Your task to perform on an android device: manage bookmarks in the chrome app Image 0: 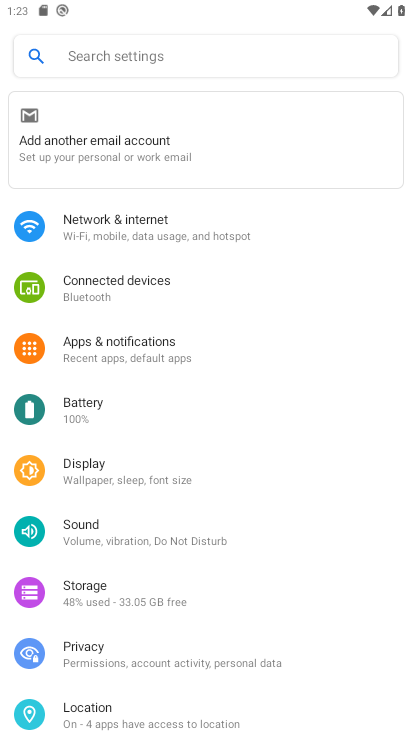
Step 0: press home button
Your task to perform on an android device: manage bookmarks in the chrome app Image 1: 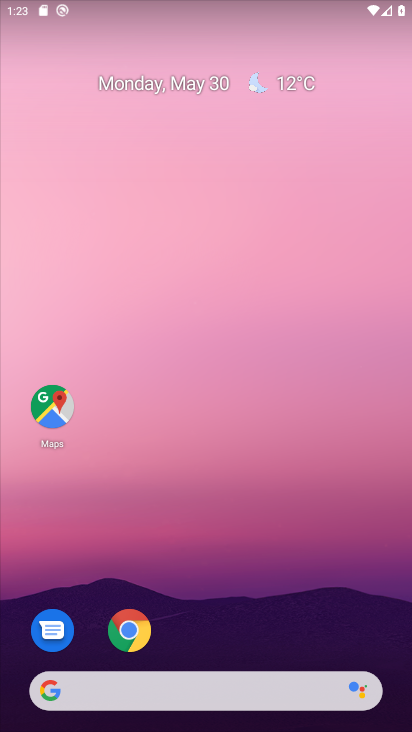
Step 1: click (129, 636)
Your task to perform on an android device: manage bookmarks in the chrome app Image 2: 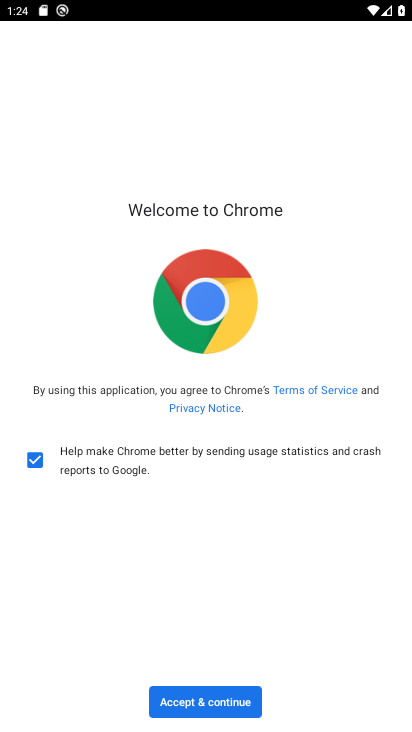
Step 2: click (194, 707)
Your task to perform on an android device: manage bookmarks in the chrome app Image 3: 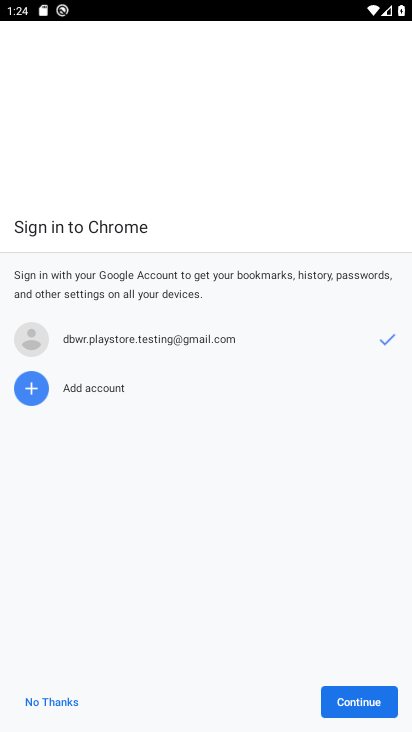
Step 3: click (354, 699)
Your task to perform on an android device: manage bookmarks in the chrome app Image 4: 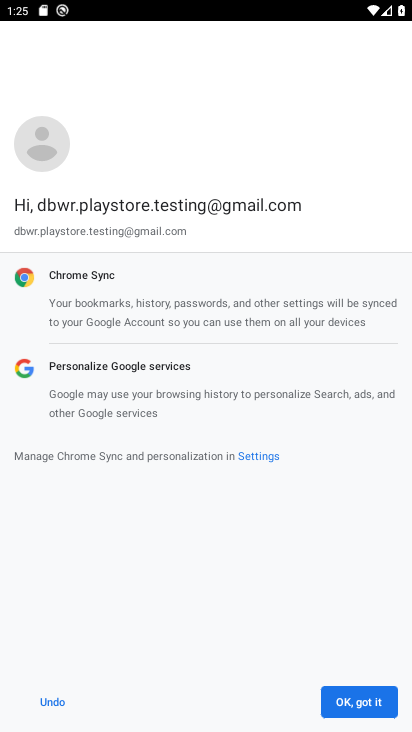
Step 4: click (354, 699)
Your task to perform on an android device: manage bookmarks in the chrome app Image 5: 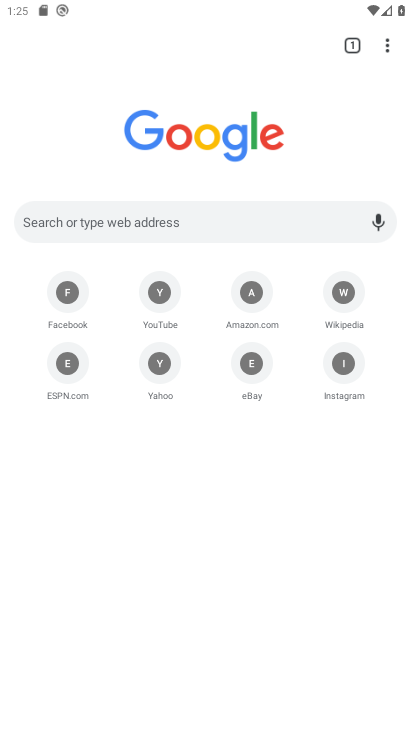
Step 5: task complete